Your task to perform on an android device: Go to Google maps Image 0: 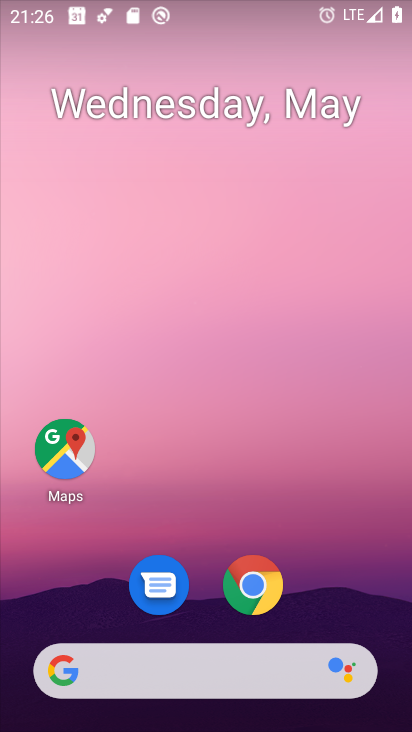
Step 0: click (68, 448)
Your task to perform on an android device: Go to Google maps Image 1: 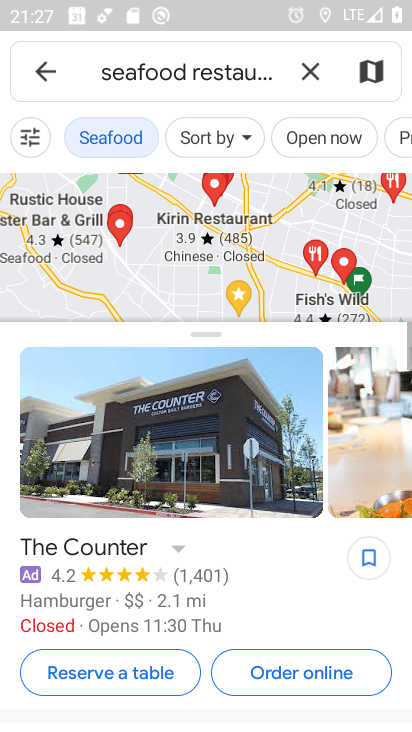
Step 1: click (309, 64)
Your task to perform on an android device: Go to Google maps Image 2: 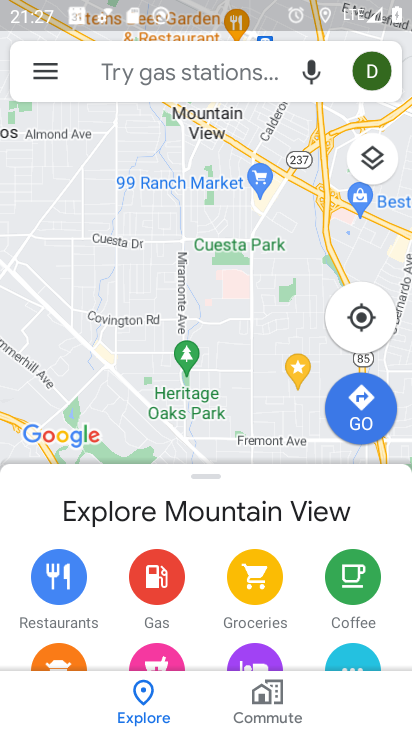
Step 2: task complete